Your task to perform on an android device: turn pop-ups on in chrome Image 0: 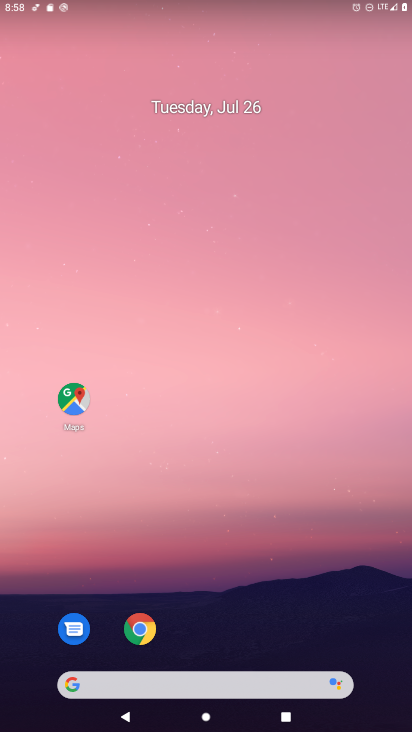
Step 0: drag from (232, 670) to (151, 49)
Your task to perform on an android device: turn pop-ups on in chrome Image 1: 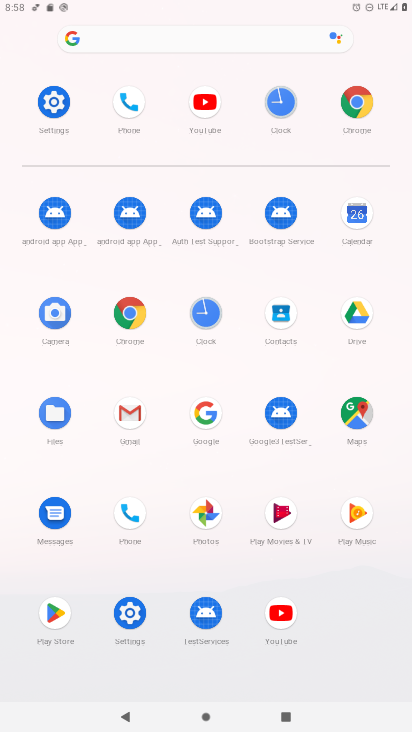
Step 1: click (131, 312)
Your task to perform on an android device: turn pop-ups on in chrome Image 2: 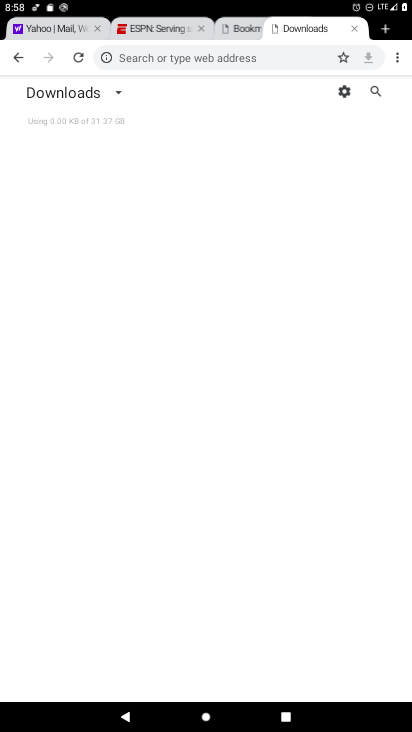
Step 2: drag from (398, 60) to (265, 266)
Your task to perform on an android device: turn pop-ups on in chrome Image 3: 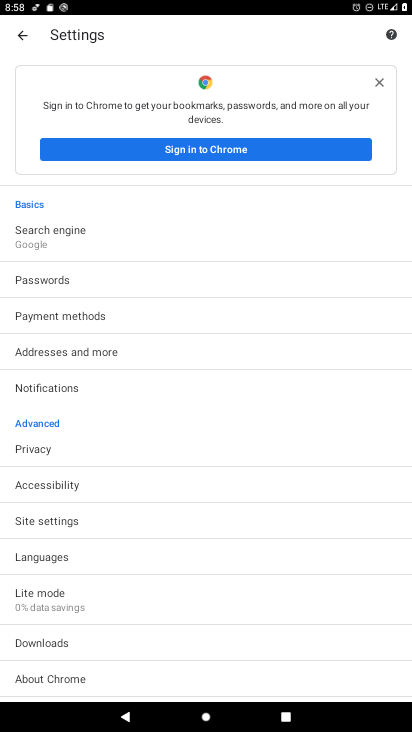
Step 3: click (37, 521)
Your task to perform on an android device: turn pop-ups on in chrome Image 4: 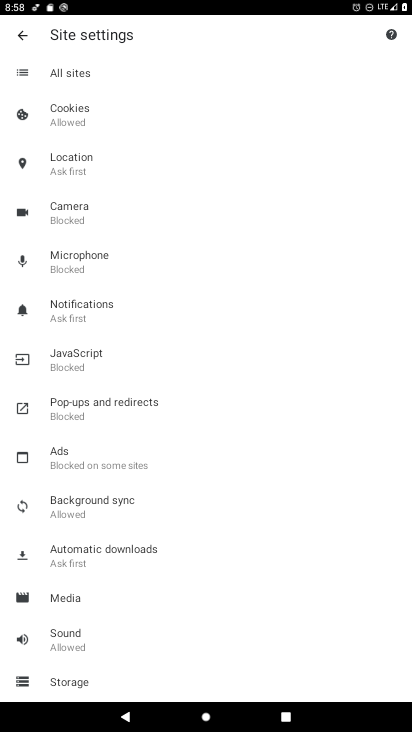
Step 4: click (63, 400)
Your task to perform on an android device: turn pop-ups on in chrome Image 5: 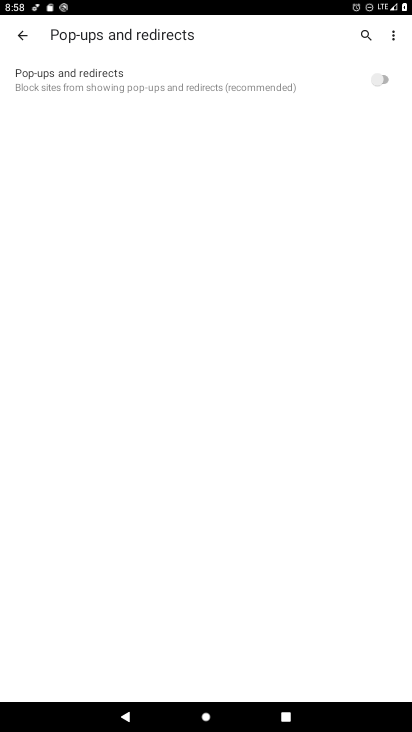
Step 5: click (375, 80)
Your task to perform on an android device: turn pop-ups on in chrome Image 6: 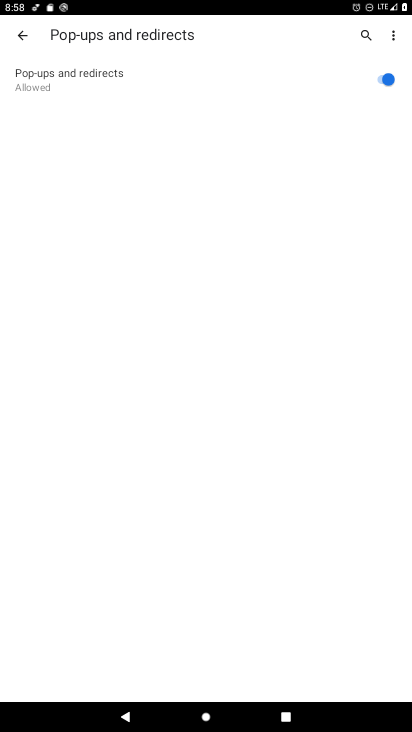
Step 6: task complete